Your task to perform on an android device: Is it going to rain tomorrow? Image 0: 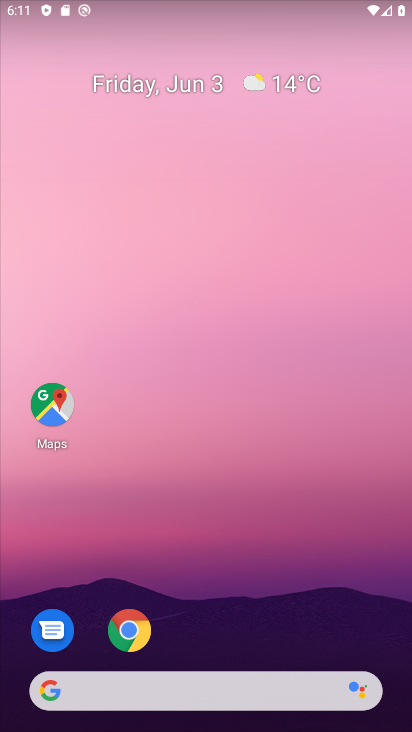
Step 0: click (189, 697)
Your task to perform on an android device: Is it going to rain tomorrow? Image 1: 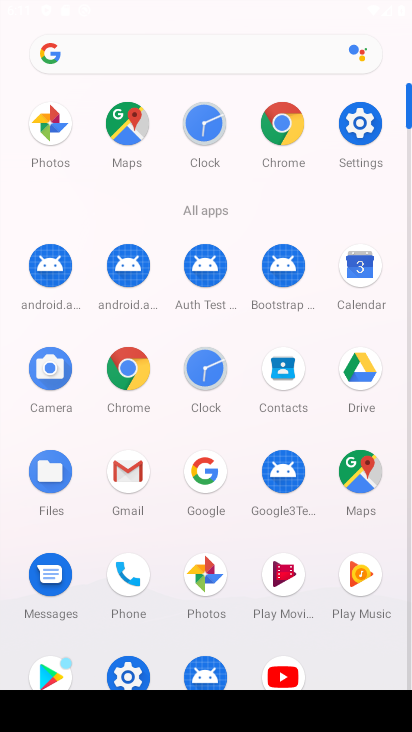
Step 1: click (204, 512)
Your task to perform on an android device: Is it going to rain tomorrow? Image 2: 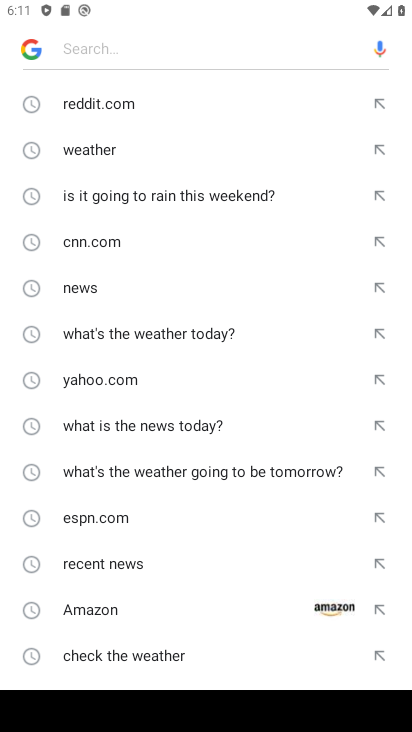
Step 2: click (97, 153)
Your task to perform on an android device: Is it going to rain tomorrow? Image 3: 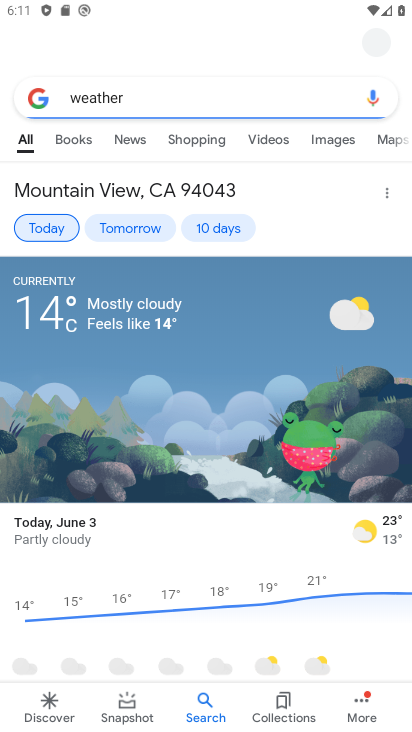
Step 3: click (115, 237)
Your task to perform on an android device: Is it going to rain tomorrow? Image 4: 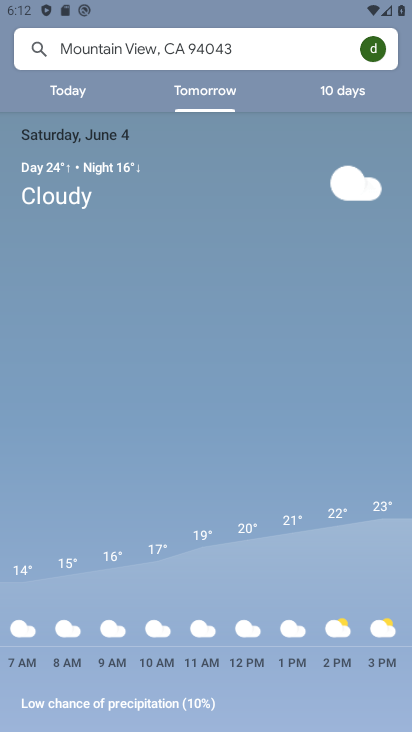
Step 4: task complete